Your task to perform on an android device: turn on the 12-hour format for clock Image 0: 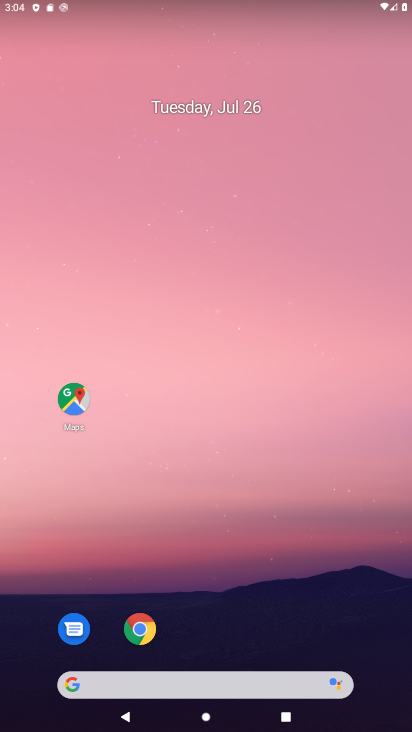
Step 0: press home button
Your task to perform on an android device: turn on the 12-hour format for clock Image 1: 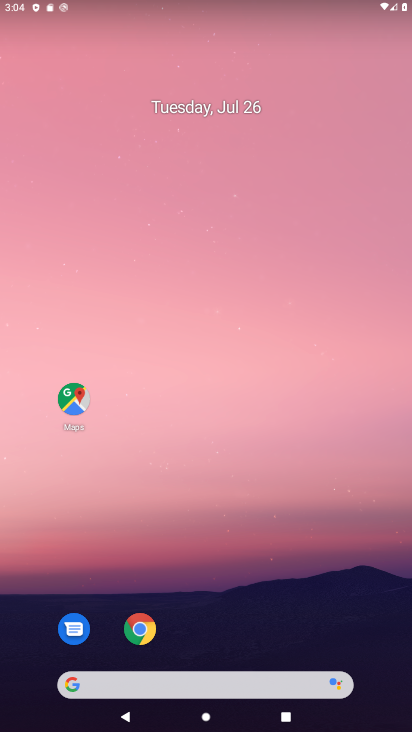
Step 1: drag from (290, 612) to (381, 9)
Your task to perform on an android device: turn on the 12-hour format for clock Image 2: 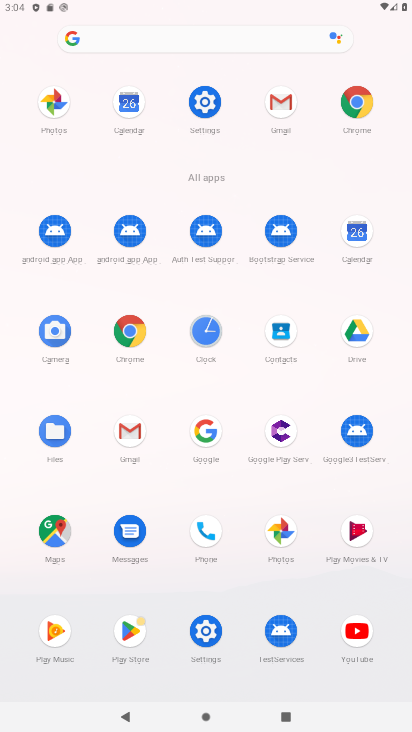
Step 2: click (218, 621)
Your task to perform on an android device: turn on the 12-hour format for clock Image 3: 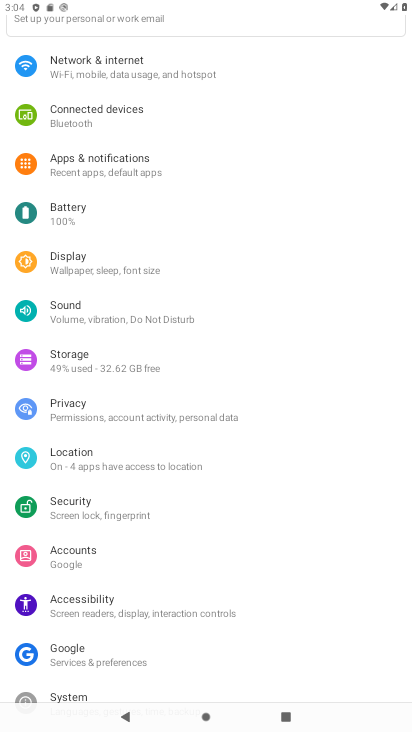
Step 3: press home button
Your task to perform on an android device: turn on the 12-hour format for clock Image 4: 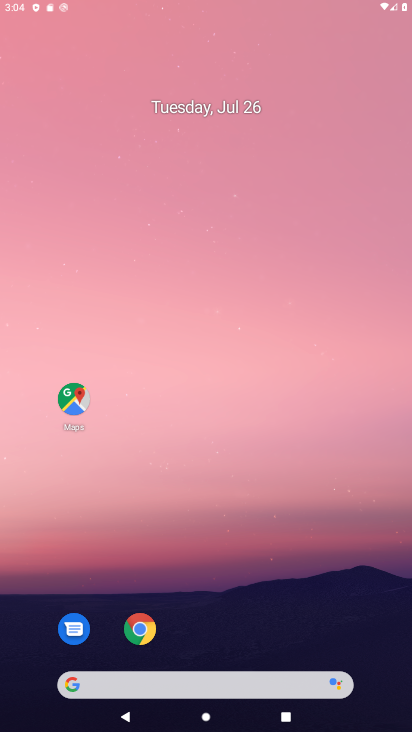
Step 4: drag from (310, 633) to (240, 53)
Your task to perform on an android device: turn on the 12-hour format for clock Image 5: 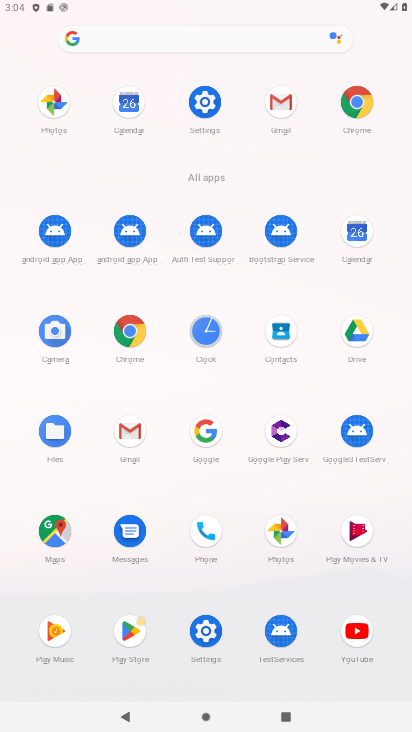
Step 5: click (228, 342)
Your task to perform on an android device: turn on the 12-hour format for clock Image 6: 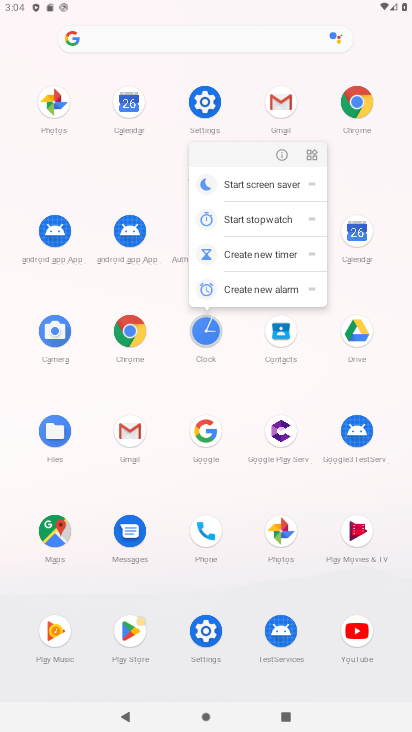
Step 6: click (228, 342)
Your task to perform on an android device: turn on the 12-hour format for clock Image 7: 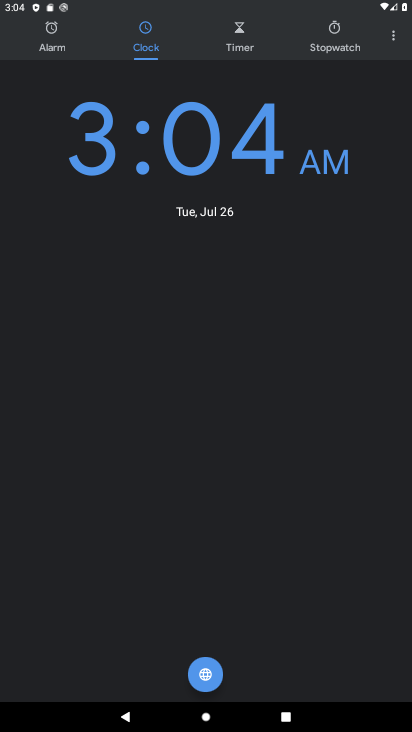
Step 7: click (387, 46)
Your task to perform on an android device: turn on the 12-hour format for clock Image 8: 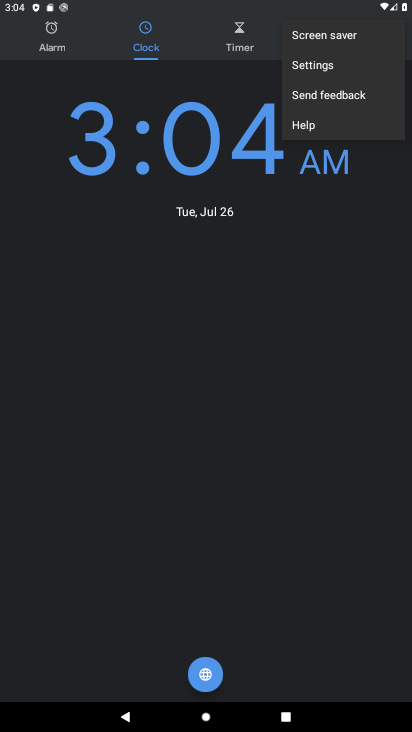
Step 8: click (322, 71)
Your task to perform on an android device: turn on the 12-hour format for clock Image 9: 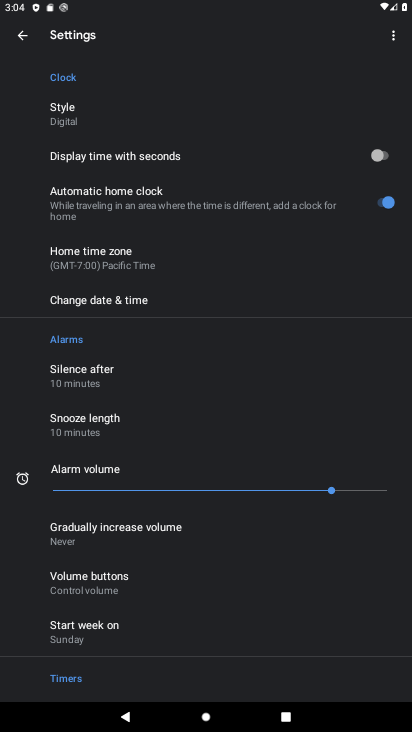
Step 9: click (60, 119)
Your task to perform on an android device: turn on the 12-hour format for clock Image 10: 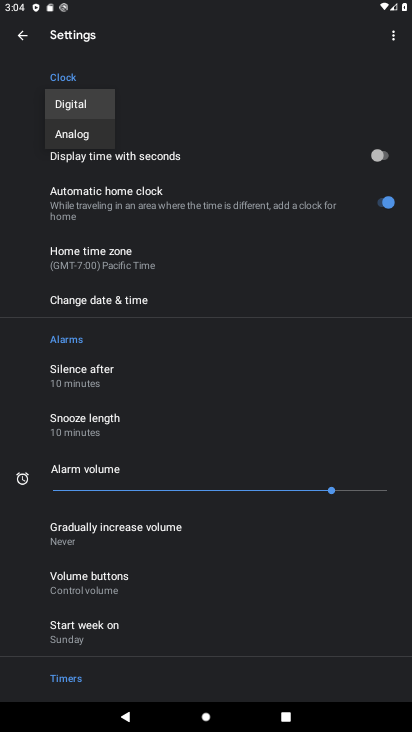
Step 10: click (275, 76)
Your task to perform on an android device: turn on the 12-hour format for clock Image 11: 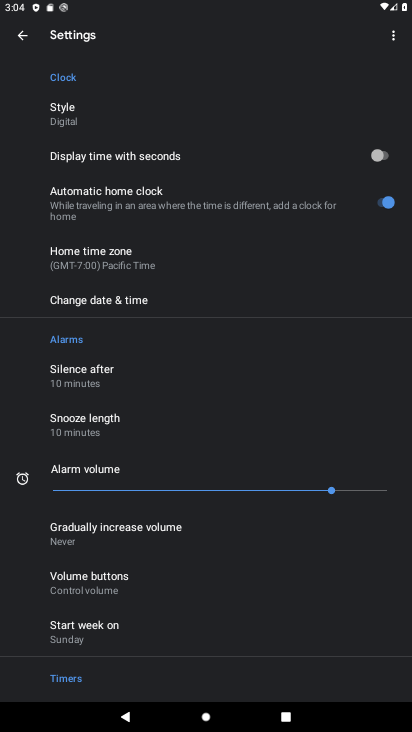
Step 11: click (141, 294)
Your task to perform on an android device: turn on the 12-hour format for clock Image 12: 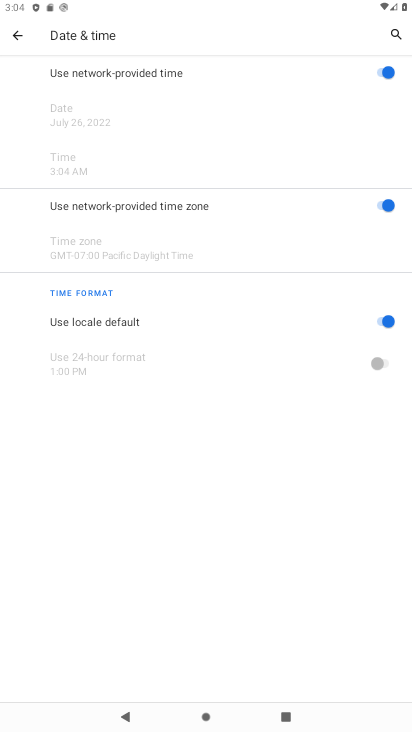
Step 12: click (377, 323)
Your task to perform on an android device: turn on the 12-hour format for clock Image 13: 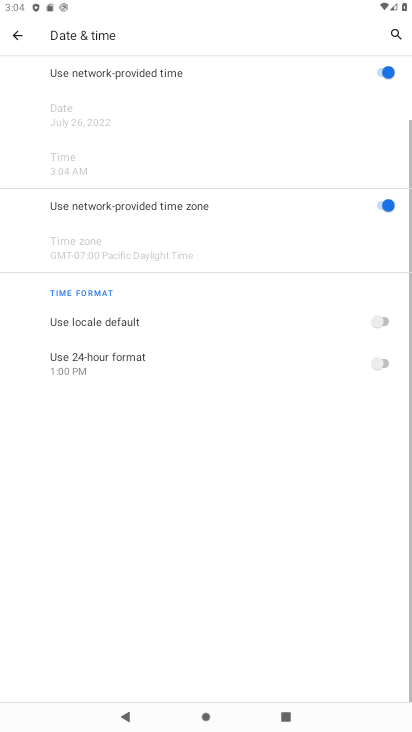
Step 13: click (376, 364)
Your task to perform on an android device: turn on the 12-hour format for clock Image 14: 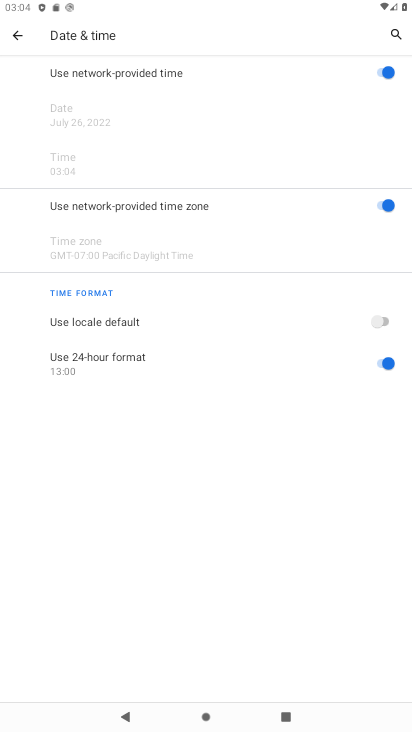
Step 14: task complete